Your task to perform on an android device: turn on notifications settings in the gmail app Image 0: 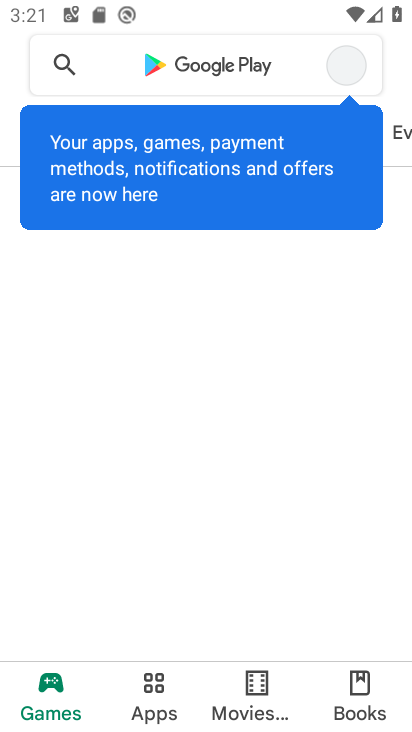
Step 0: press home button
Your task to perform on an android device: turn on notifications settings in the gmail app Image 1: 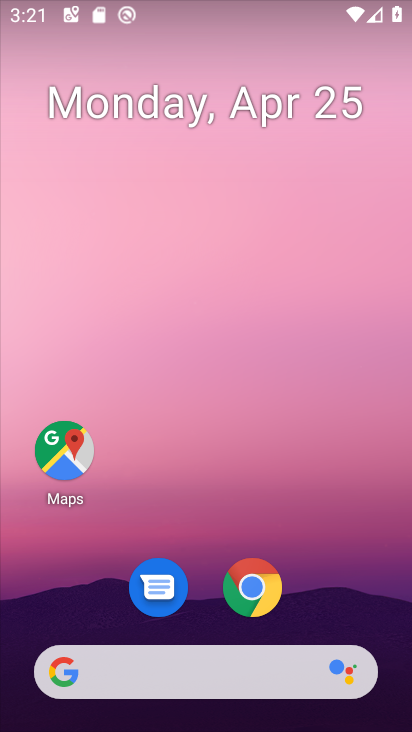
Step 1: drag from (200, 573) to (176, 109)
Your task to perform on an android device: turn on notifications settings in the gmail app Image 2: 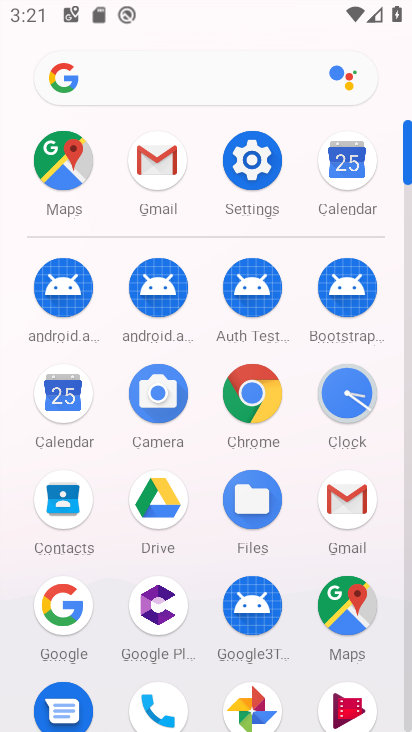
Step 2: click (158, 168)
Your task to perform on an android device: turn on notifications settings in the gmail app Image 3: 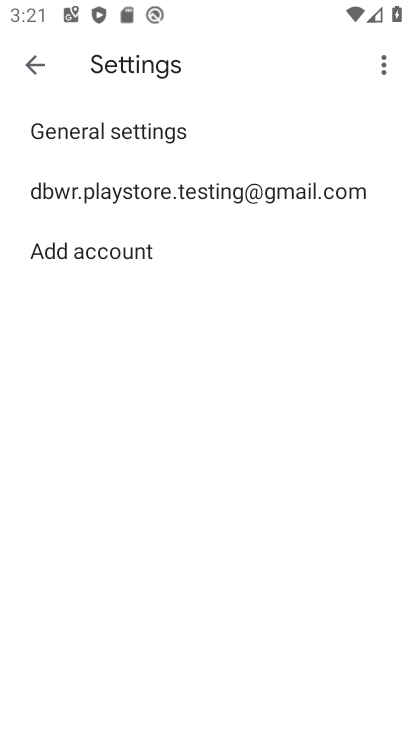
Step 3: click (102, 189)
Your task to perform on an android device: turn on notifications settings in the gmail app Image 4: 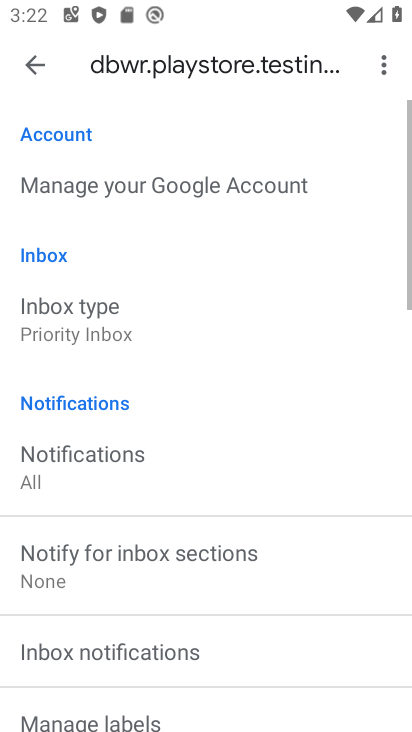
Step 4: click (54, 481)
Your task to perform on an android device: turn on notifications settings in the gmail app Image 5: 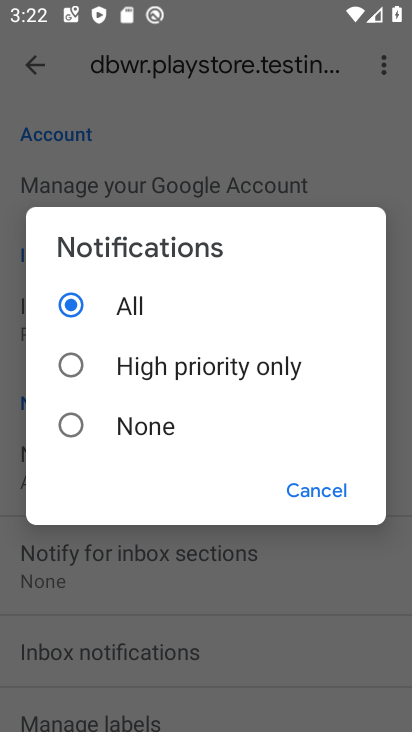
Step 5: task complete